Your task to perform on an android device: Search for Mexican restaurants on Maps Image 0: 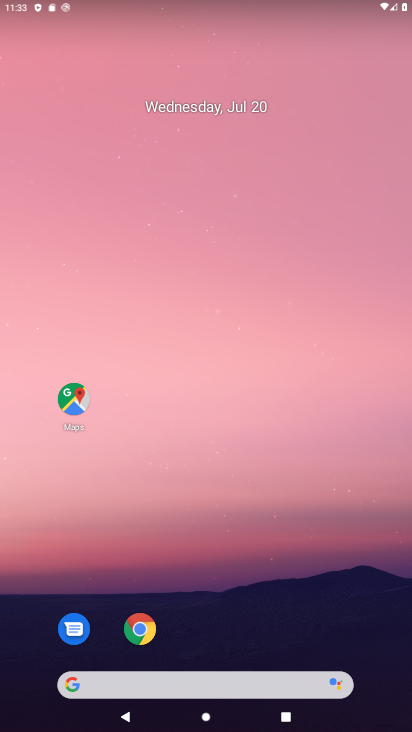
Step 0: drag from (176, 621) to (201, 212)
Your task to perform on an android device: Search for Mexican restaurants on Maps Image 1: 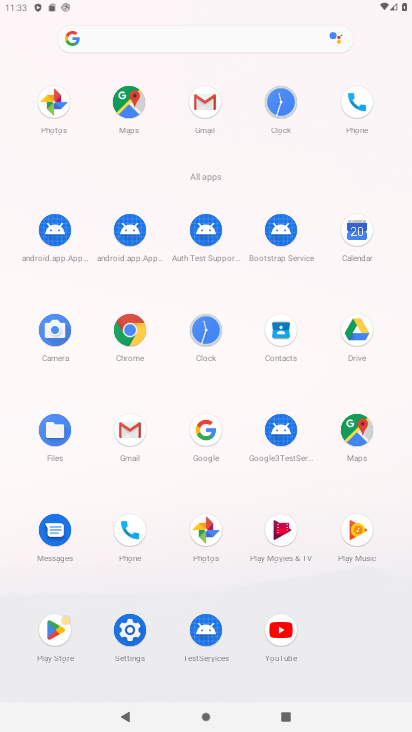
Step 1: click (119, 92)
Your task to perform on an android device: Search for Mexican restaurants on Maps Image 2: 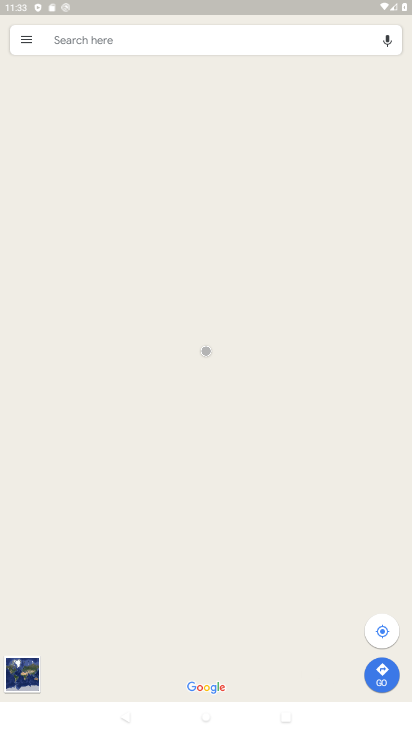
Step 2: click (186, 38)
Your task to perform on an android device: Search for Mexican restaurants on Maps Image 3: 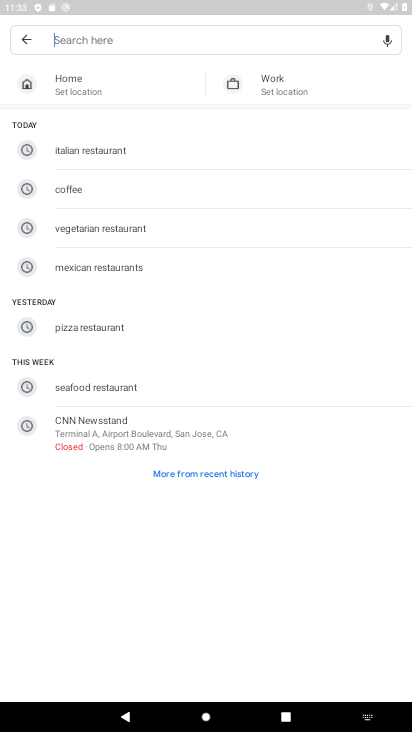
Step 3: click (140, 268)
Your task to perform on an android device: Search for Mexican restaurants on Maps Image 4: 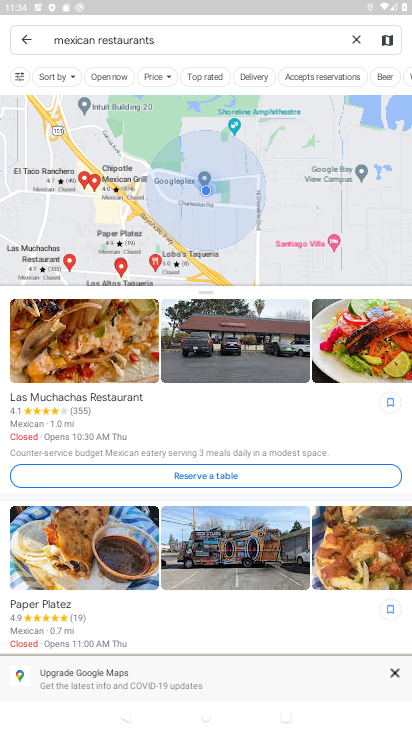
Step 4: task complete